Your task to perform on an android device: choose inbox layout in the gmail app Image 0: 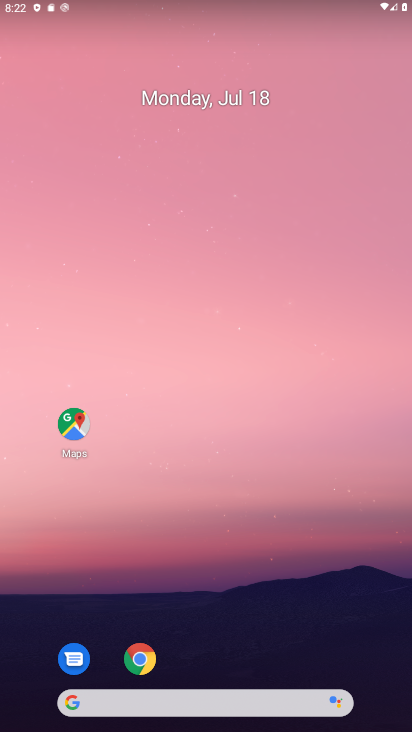
Step 0: drag from (283, 562) to (232, 142)
Your task to perform on an android device: choose inbox layout in the gmail app Image 1: 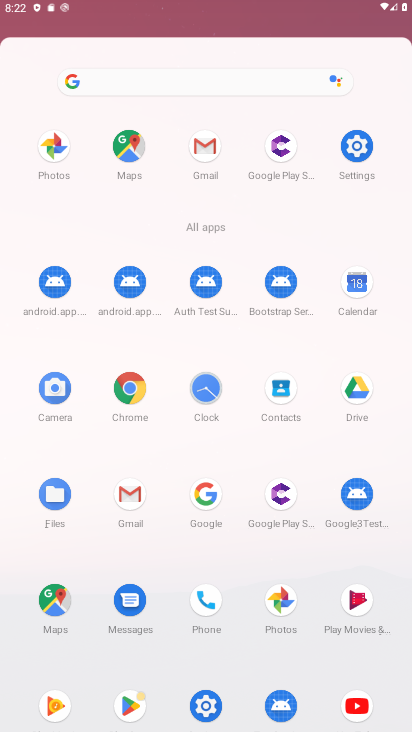
Step 1: drag from (235, 652) to (233, 256)
Your task to perform on an android device: choose inbox layout in the gmail app Image 2: 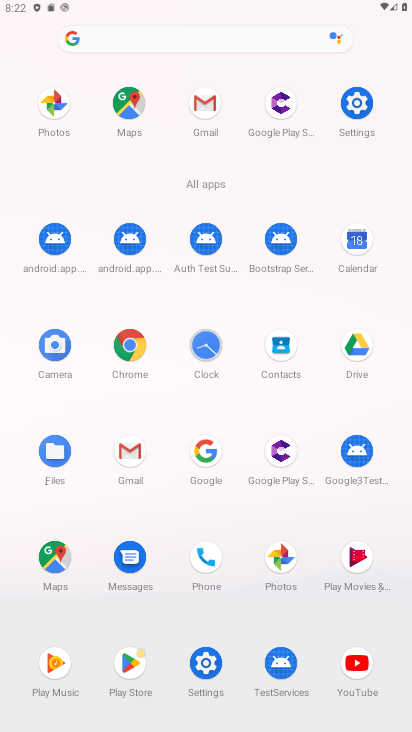
Step 2: click (118, 455)
Your task to perform on an android device: choose inbox layout in the gmail app Image 3: 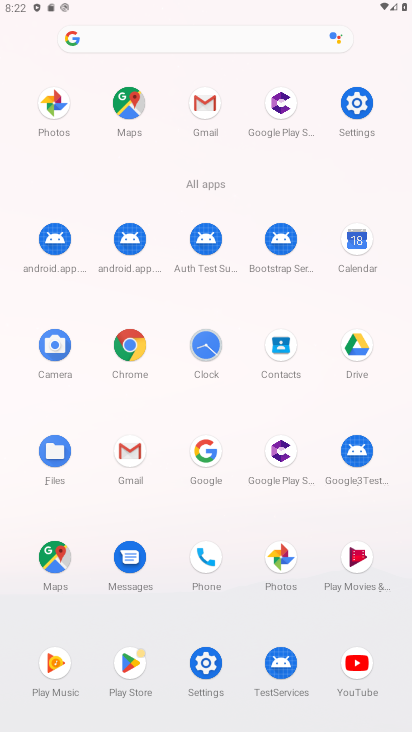
Step 3: click (129, 453)
Your task to perform on an android device: choose inbox layout in the gmail app Image 4: 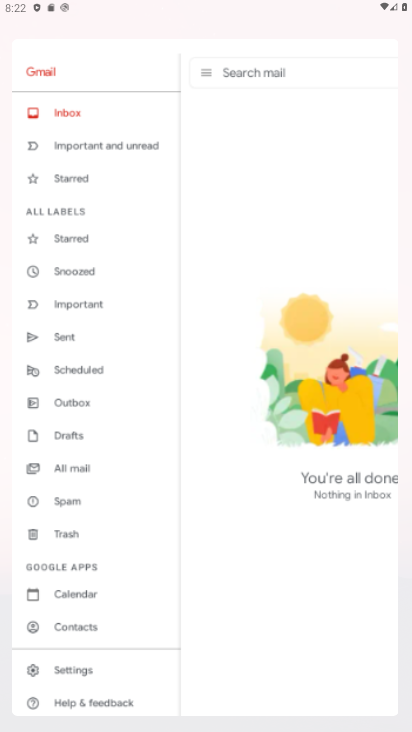
Step 4: click (129, 450)
Your task to perform on an android device: choose inbox layout in the gmail app Image 5: 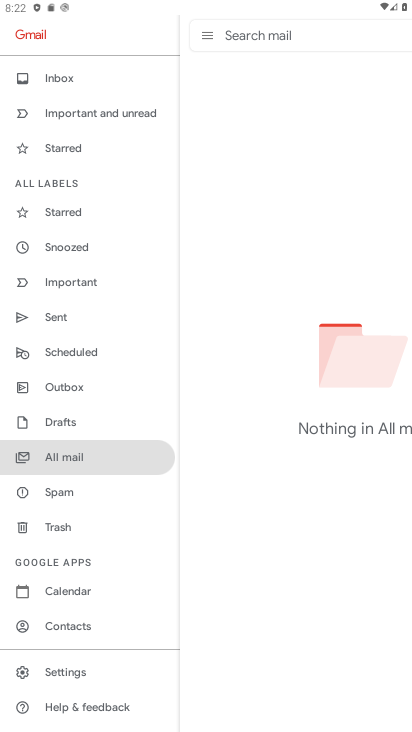
Step 5: click (61, 460)
Your task to perform on an android device: choose inbox layout in the gmail app Image 6: 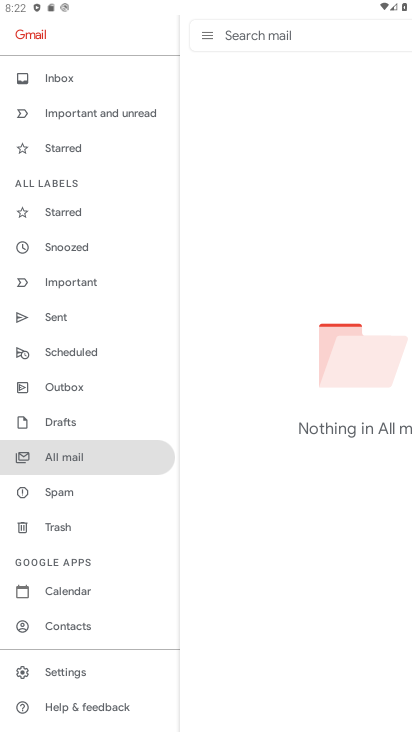
Step 6: task complete